Your task to perform on an android device: Open Android settings Image 0: 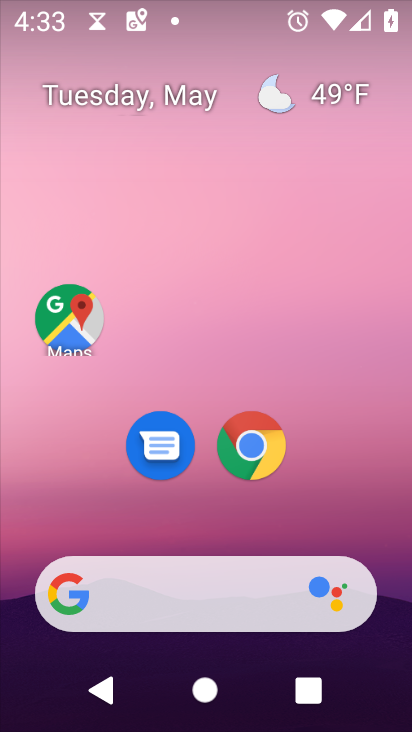
Step 0: drag from (314, 568) to (285, 20)
Your task to perform on an android device: Open Android settings Image 1: 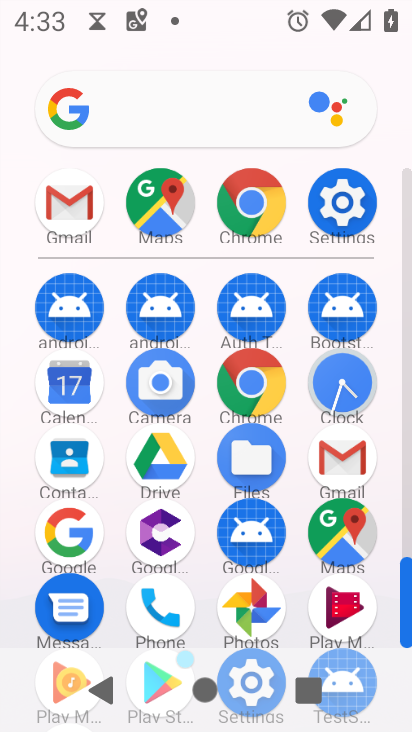
Step 1: click (349, 177)
Your task to perform on an android device: Open Android settings Image 2: 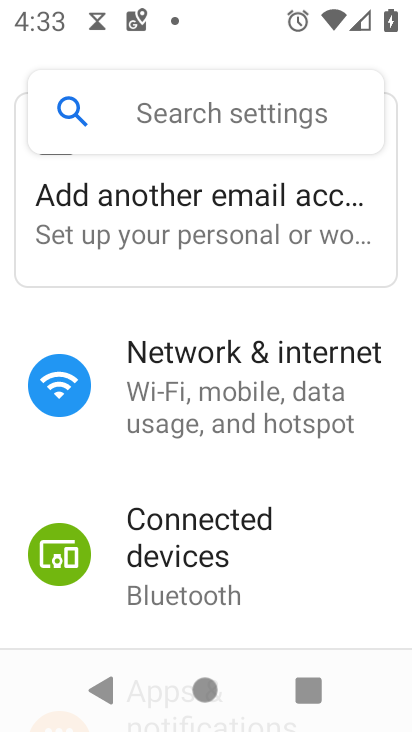
Step 2: drag from (270, 610) to (290, 100)
Your task to perform on an android device: Open Android settings Image 3: 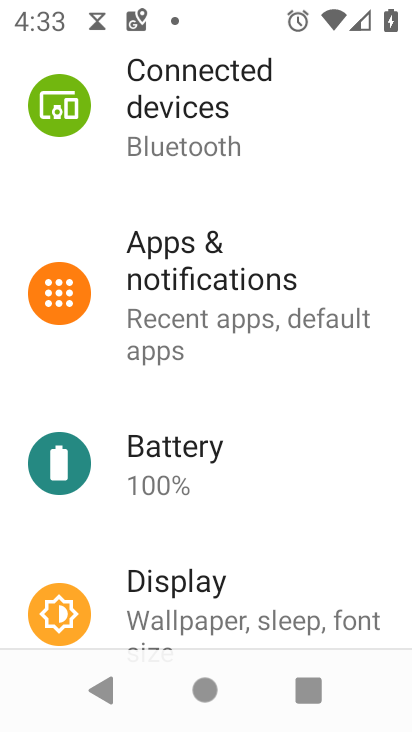
Step 3: drag from (295, 591) to (319, 178)
Your task to perform on an android device: Open Android settings Image 4: 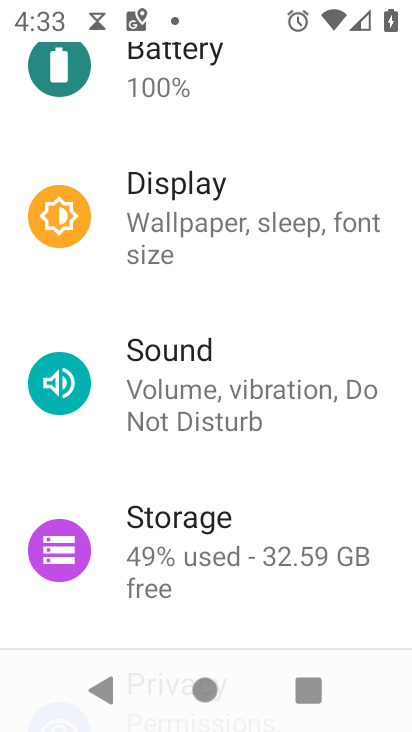
Step 4: drag from (286, 543) to (329, 91)
Your task to perform on an android device: Open Android settings Image 5: 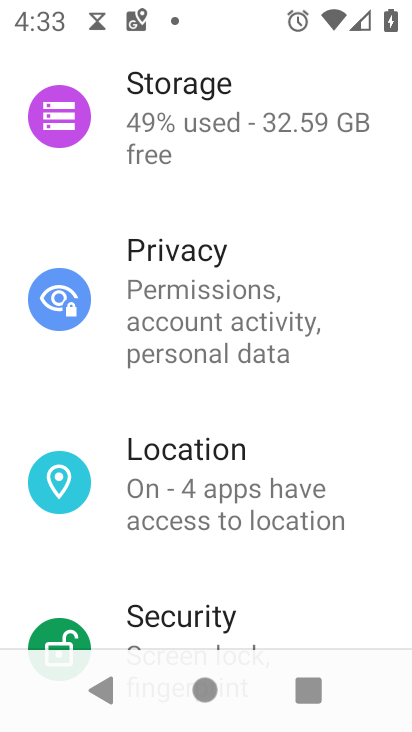
Step 5: drag from (275, 596) to (296, 164)
Your task to perform on an android device: Open Android settings Image 6: 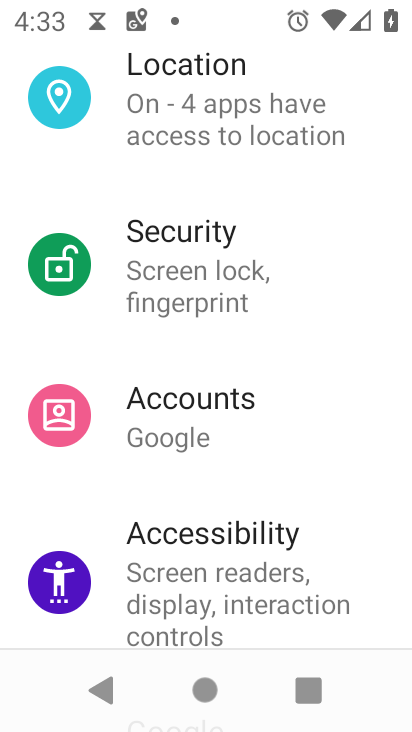
Step 6: drag from (314, 576) to (254, 101)
Your task to perform on an android device: Open Android settings Image 7: 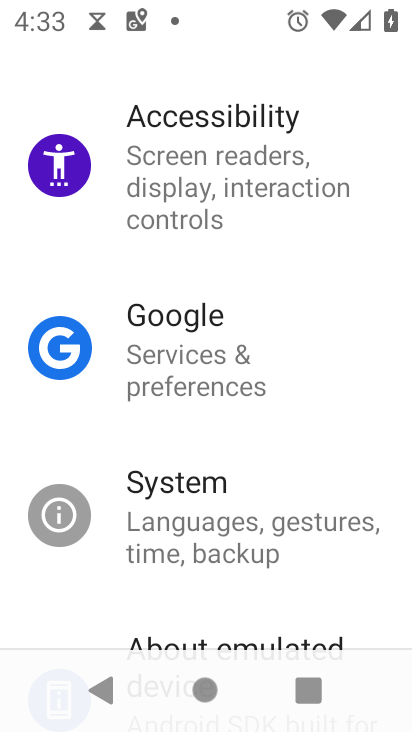
Step 7: drag from (262, 583) to (281, 184)
Your task to perform on an android device: Open Android settings Image 8: 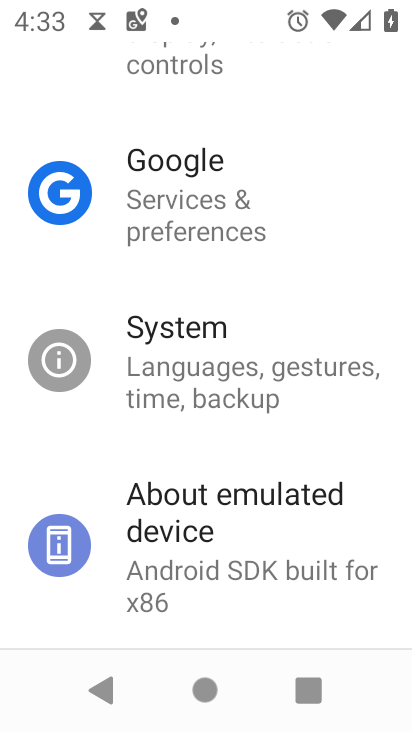
Step 8: click (300, 548)
Your task to perform on an android device: Open Android settings Image 9: 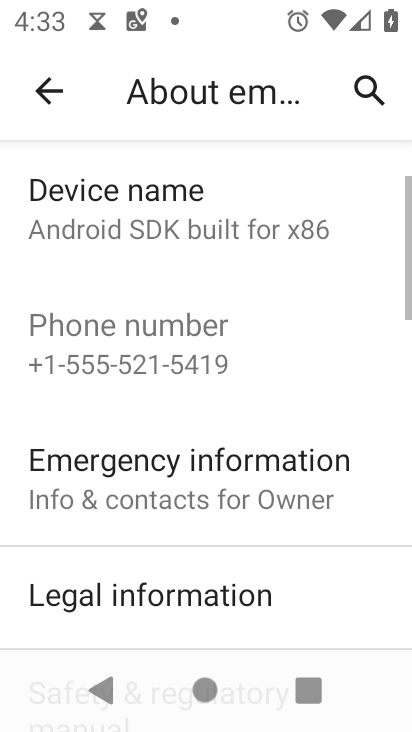
Step 9: drag from (264, 606) to (259, 101)
Your task to perform on an android device: Open Android settings Image 10: 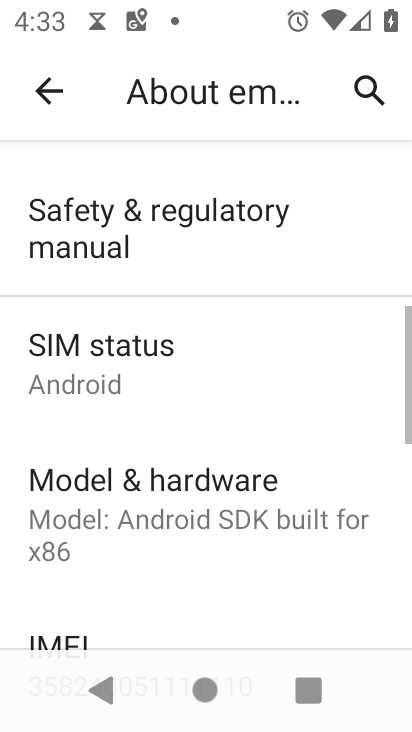
Step 10: drag from (248, 607) to (297, 178)
Your task to perform on an android device: Open Android settings Image 11: 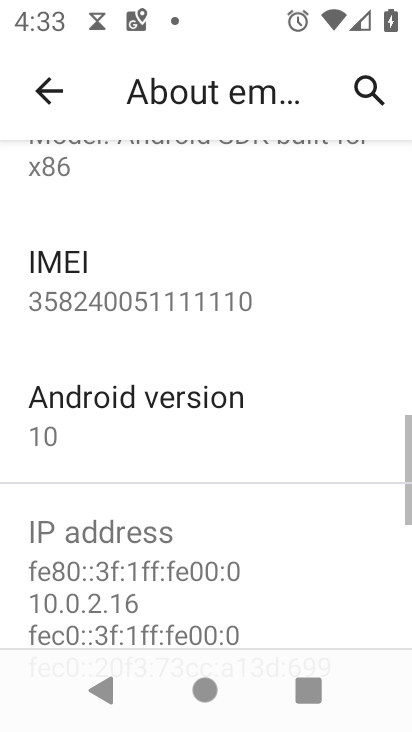
Step 11: click (184, 419)
Your task to perform on an android device: Open Android settings Image 12: 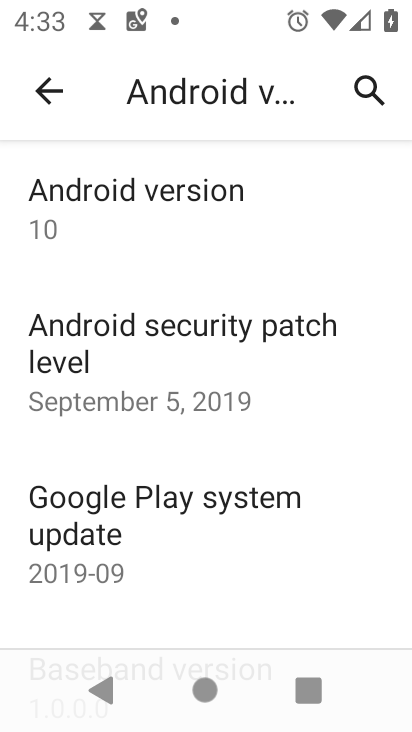
Step 12: task complete